Your task to perform on an android device: Show me recent news Image 0: 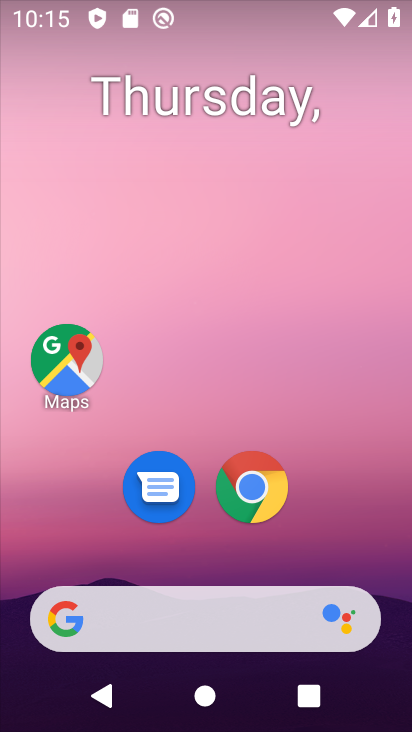
Step 0: click (259, 462)
Your task to perform on an android device: Show me recent news Image 1: 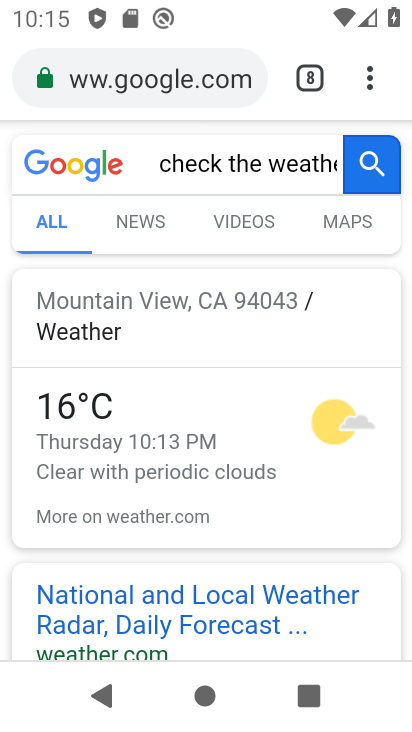
Step 1: click (316, 85)
Your task to perform on an android device: Show me recent news Image 2: 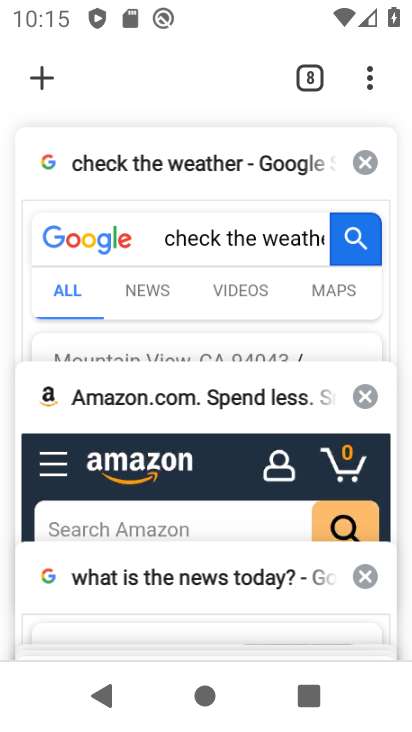
Step 2: drag from (149, 557) to (163, 156)
Your task to perform on an android device: Show me recent news Image 3: 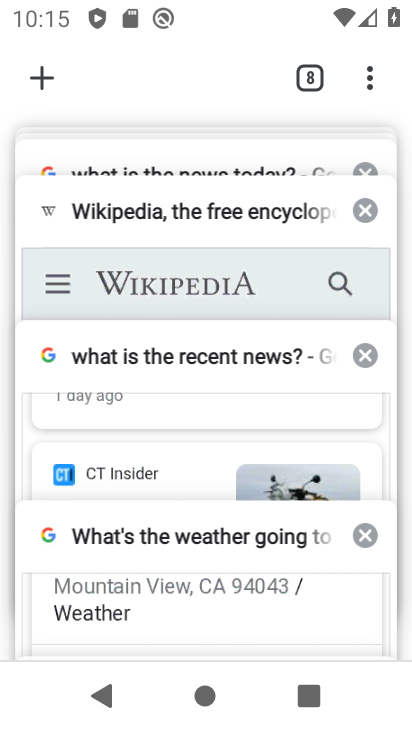
Step 3: click (147, 371)
Your task to perform on an android device: Show me recent news Image 4: 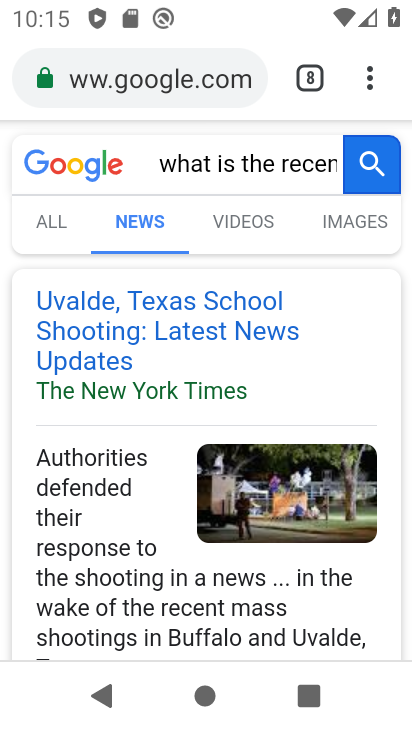
Step 4: task complete